Your task to perform on an android device: Open battery settings Image 0: 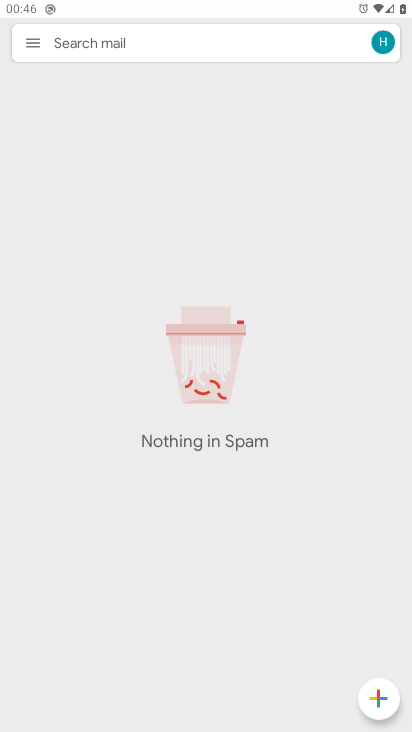
Step 0: press home button
Your task to perform on an android device: Open battery settings Image 1: 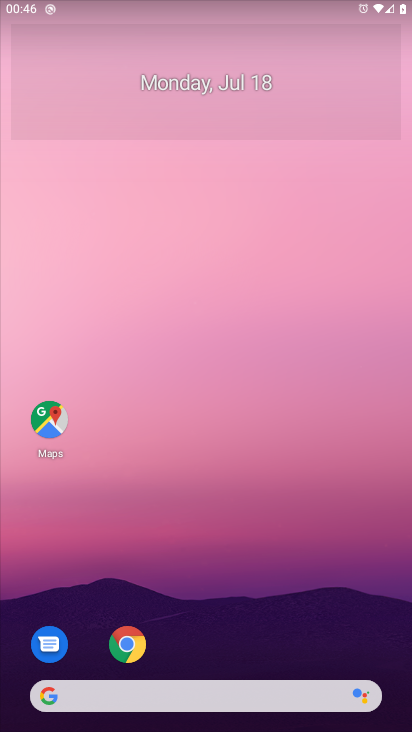
Step 1: drag from (269, 586) to (312, 103)
Your task to perform on an android device: Open battery settings Image 2: 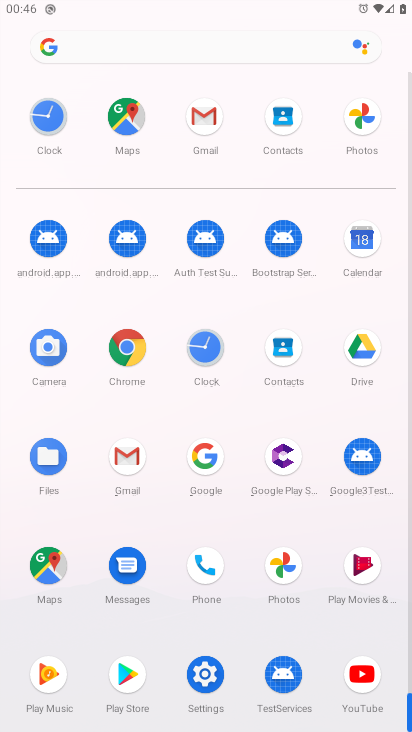
Step 2: drag from (241, 525) to (204, 62)
Your task to perform on an android device: Open battery settings Image 3: 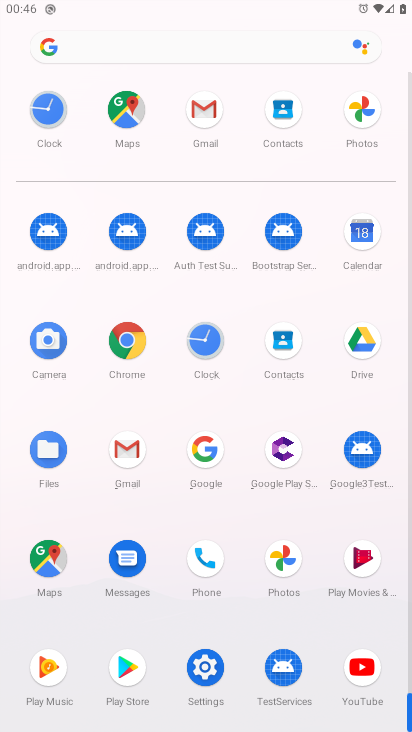
Step 3: click (196, 664)
Your task to perform on an android device: Open battery settings Image 4: 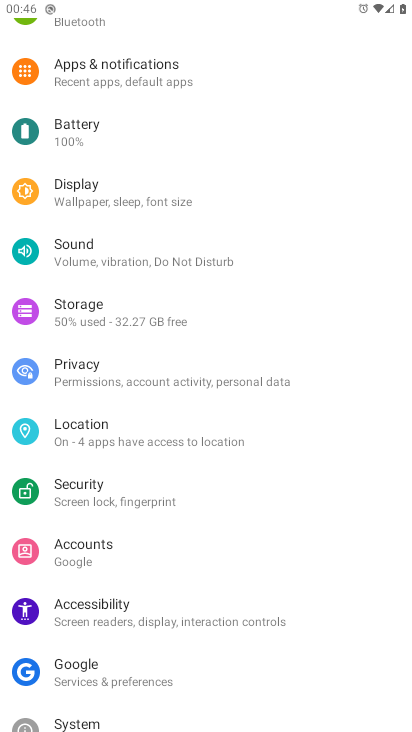
Step 4: click (105, 132)
Your task to perform on an android device: Open battery settings Image 5: 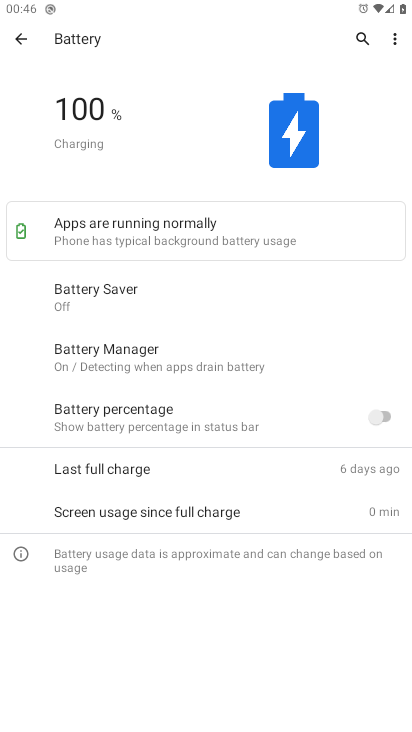
Step 5: task complete